Your task to perform on an android device: turn off airplane mode Image 0: 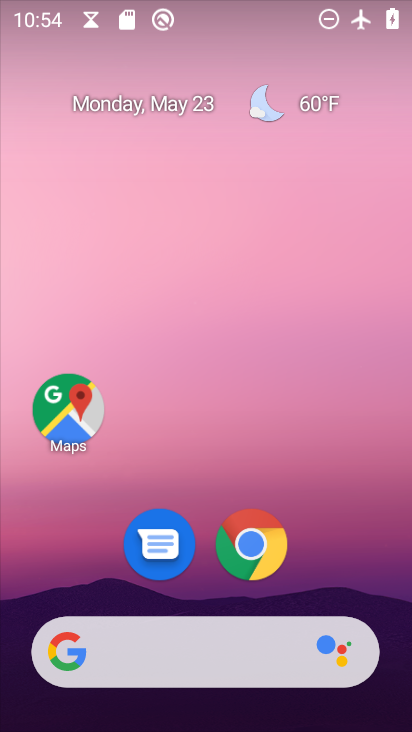
Step 0: drag from (315, 558) to (106, 297)
Your task to perform on an android device: turn off airplane mode Image 1: 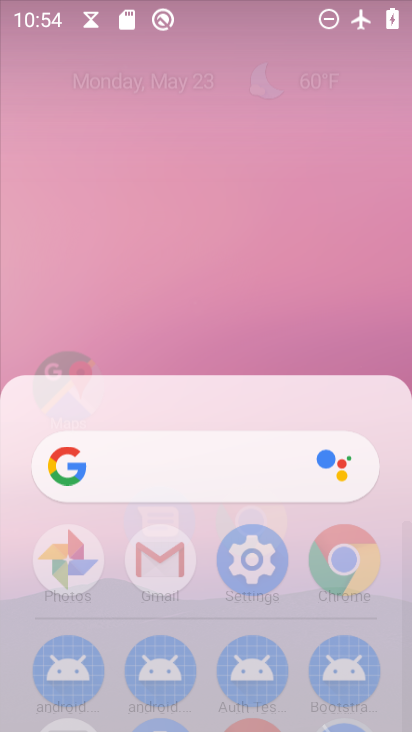
Step 1: click (66, 173)
Your task to perform on an android device: turn off airplane mode Image 2: 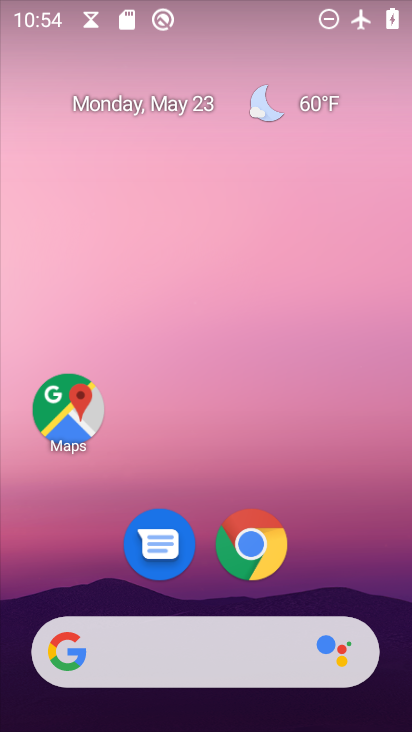
Step 2: drag from (324, 548) to (57, 88)
Your task to perform on an android device: turn off airplane mode Image 3: 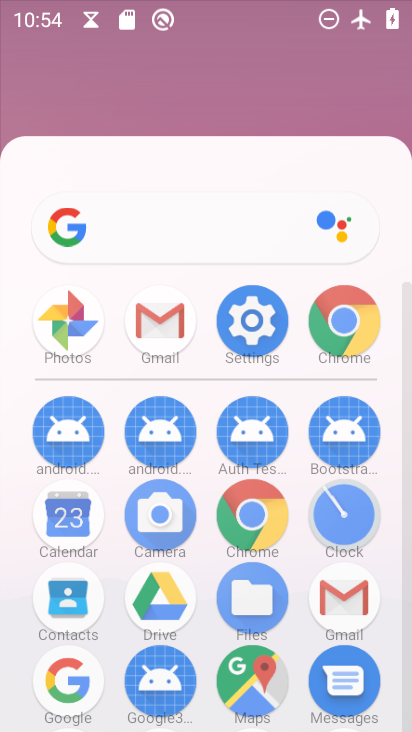
Step 3: click (51, 71)
Your task to perform on an android device: turn off airplane mode Image 4: 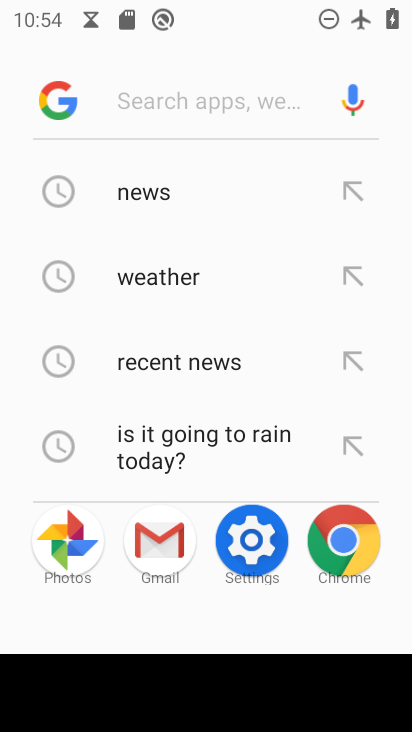
Step 4: press home button
Your task to perform on an android device: turn off airplane mode Image 5: 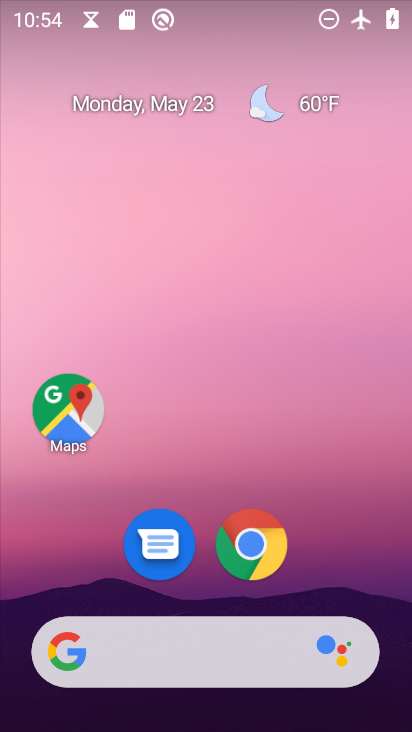
Step 5: drag from (324, 579) to (251, 89)
Your task to perform on an android device: turn off airplane mode Image 6: 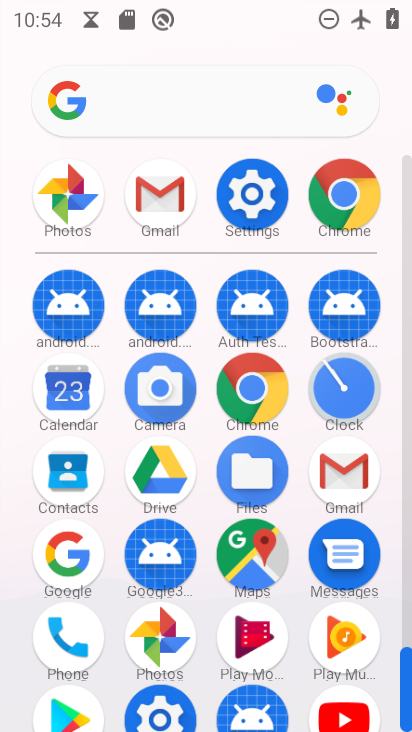
Step 6: click (254, 213)
Your task to perform on an android device: turn off airplane mode Image 7: 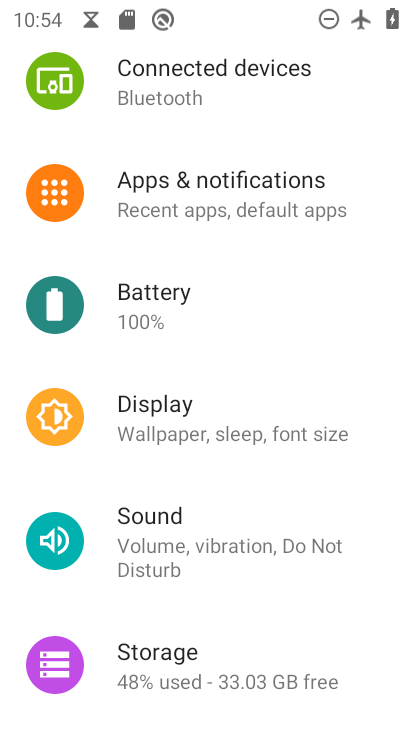
Step 7: drag from (250, 127) to (240, 395)
Your task to perform on an android device: turn off airplane mode Image 8: 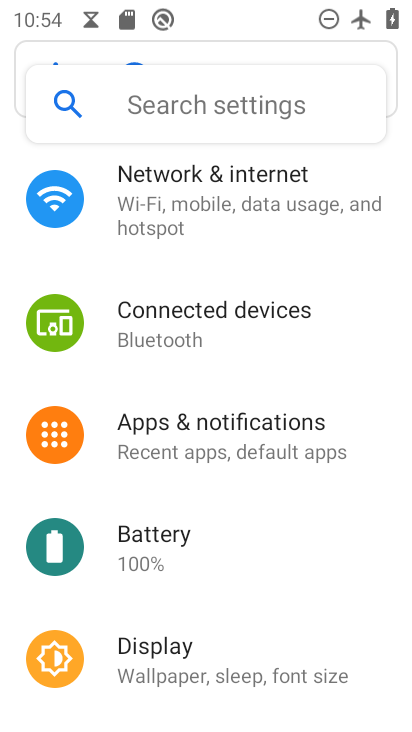
Step 8: click (178, 211)
Your task to perform on an android device: turn off airplane mode Image 9: 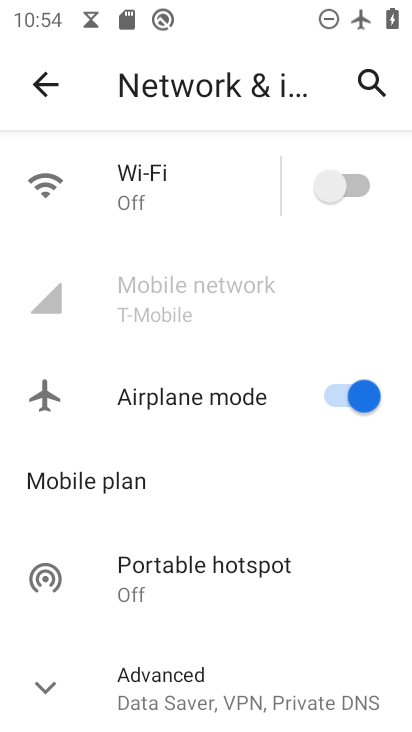
Step 9: click (351, 393)
Your task to perform on an android device: turn off airplane mode Image 10: 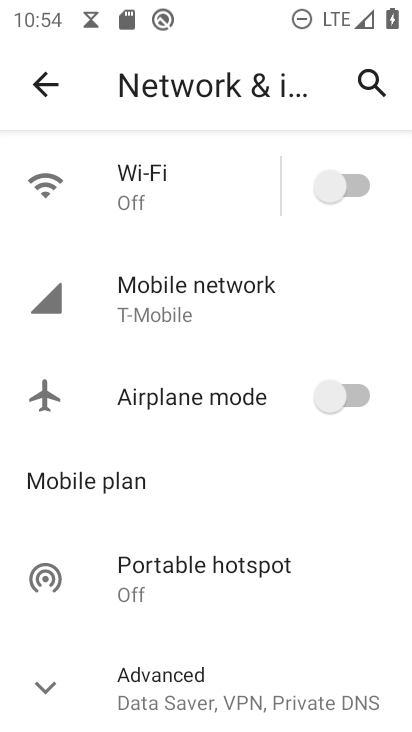
Step 10: task complete